Your task to perform on an android device: allow cookies in the chrome app Image 0: 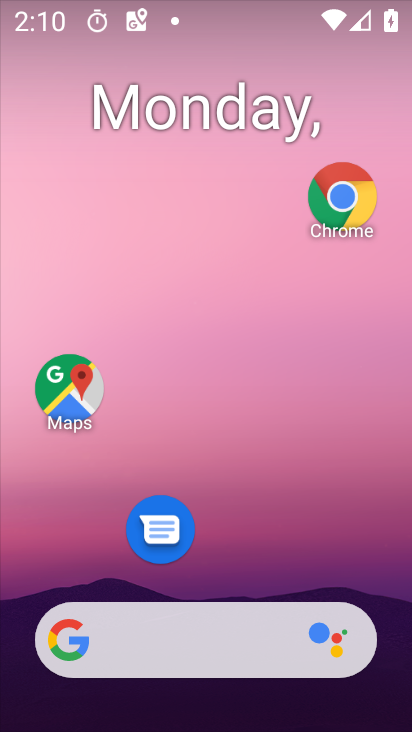
Step 0: drag from (237, 596) to (178, 68)
Your task to perform on an android device: allow cookies in the chrome app Image 1: 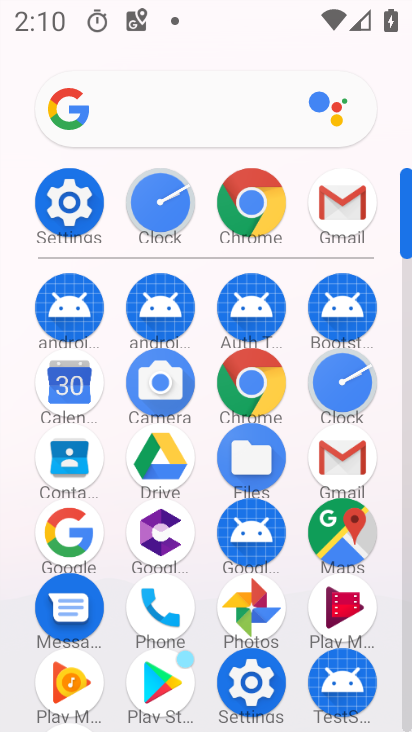
Step 1: click (267, 385)
Your task to perform on an android device: allow cookies in the chrome app Image 2: 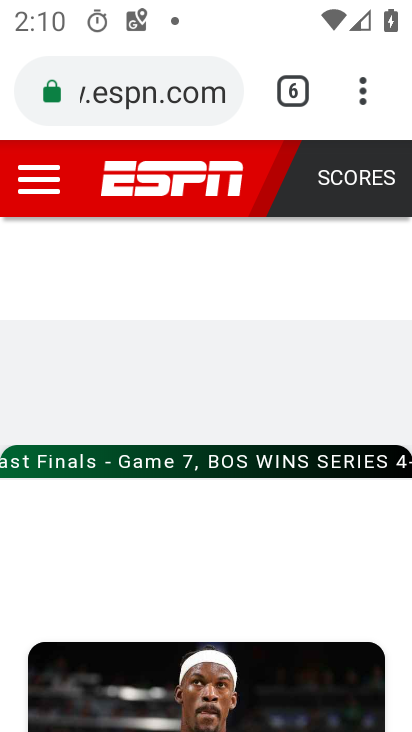
Step 2: click (363, 91)
Your task to perform on an android device: allow cookies in the chrome app Image 3: 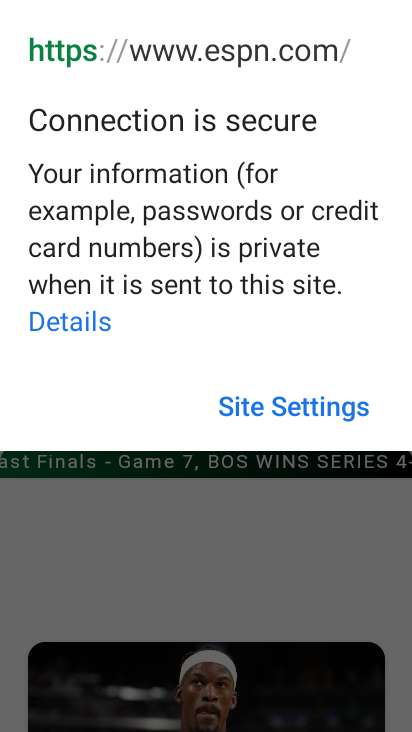
Step 3: click (363, 91)
Your task to perform on an android device: allow cookies in the chrome app Image 4: 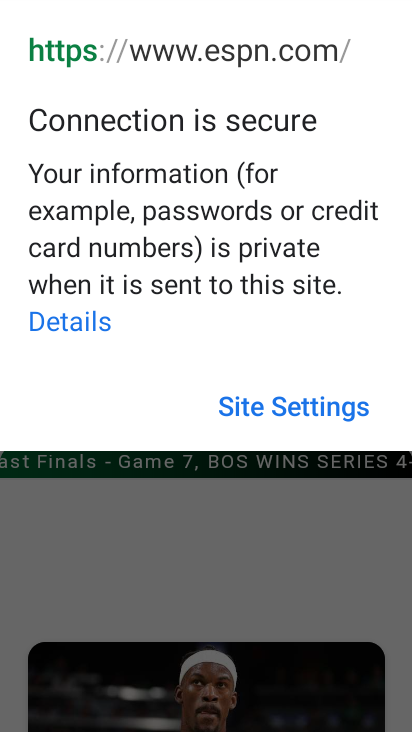
Step 4: click (271, 512)
Your task to perform on an android device: allow cookies in the chrome app Image 5: 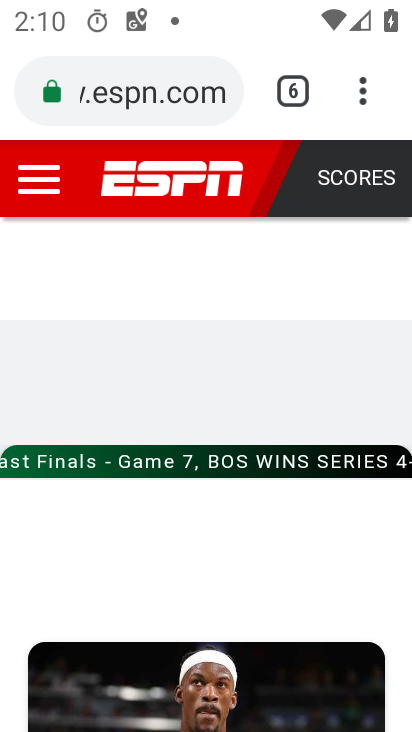
Step 5: drag from (358, 100) to (122, 553)
Your task to perform on an android device: allow cookies in the chrome app Image 6: 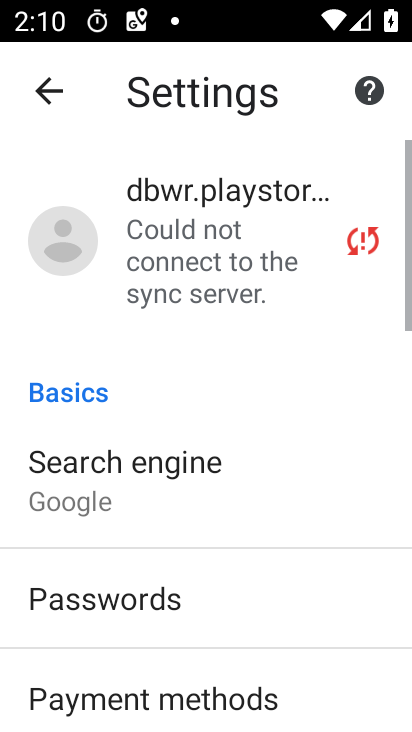
Step 6: drag from (195, 290) to (172, 44)
Your task to perform on an android device: allow cookies in the chrome app Image 7: 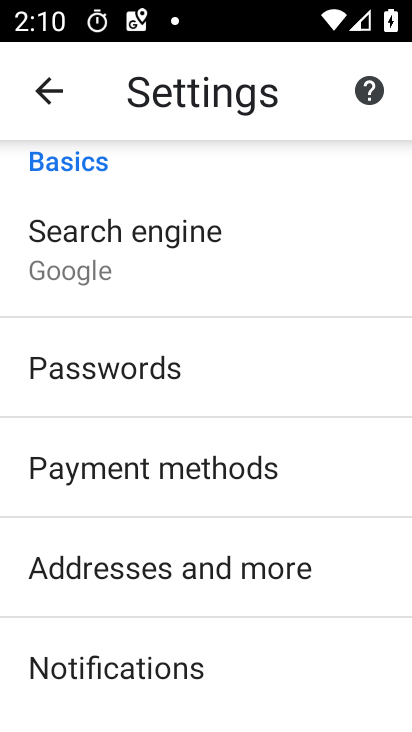
Step 7: drag from (186, 614) to (119, 108)
Your task to perform on an android device: allow cookies in the chrome app Image 8: 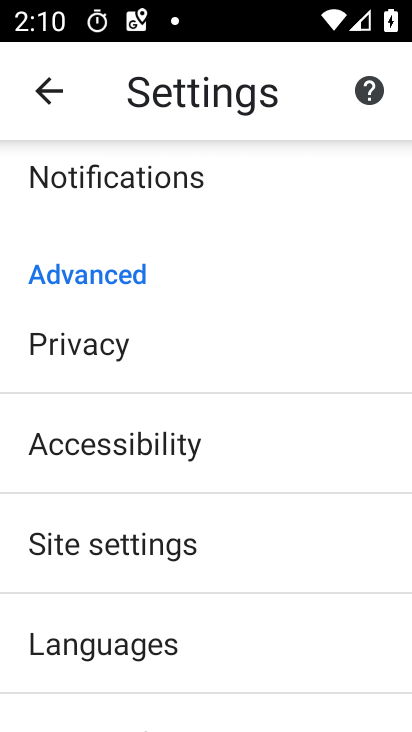
Step 8: click (146, 537)
Your task to perform on an android device: allow cookies in the chrome app Image 9: 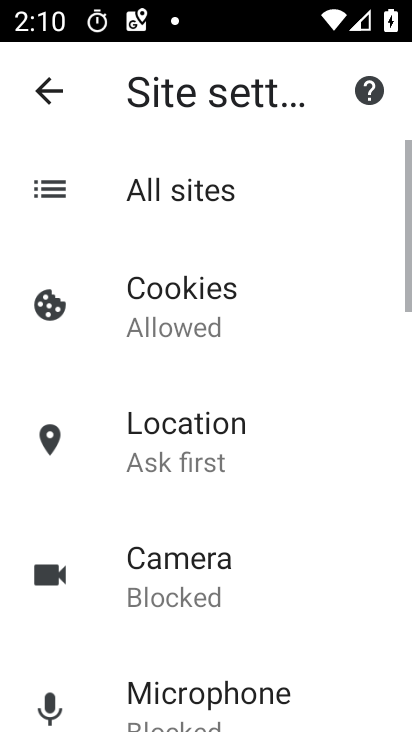
Step 9: click (217, 334)
Your task to perform on an android device: allow cookies in the chrome app Image 10: 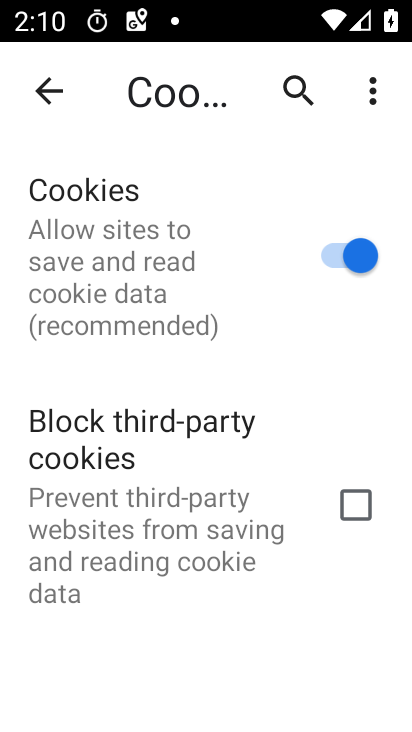
Step 10: task complete